Your task to perform on an android device: What's the weather going to be tomorrow? Image 0: 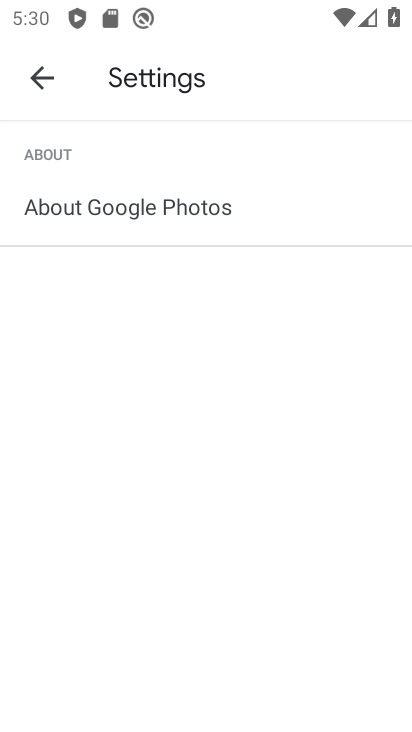
Step 0: press home button
Your task to perform on an android device: What's the weather going to be tomorrow? Image 1: 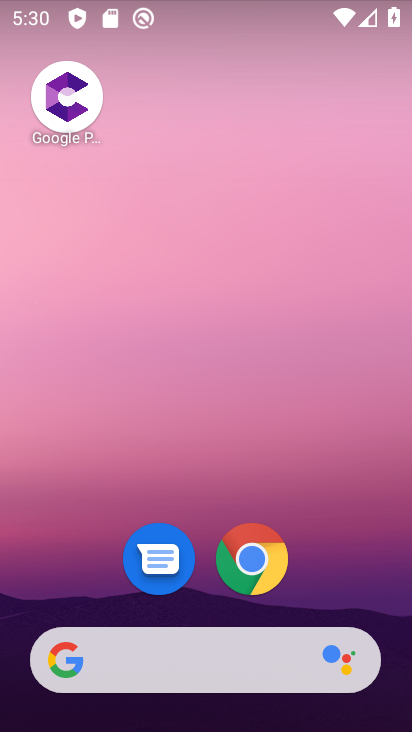
Step 1: click (258, 572)
Your task to perform on an android device: What's the weather going to be tomorrow? Image 2: 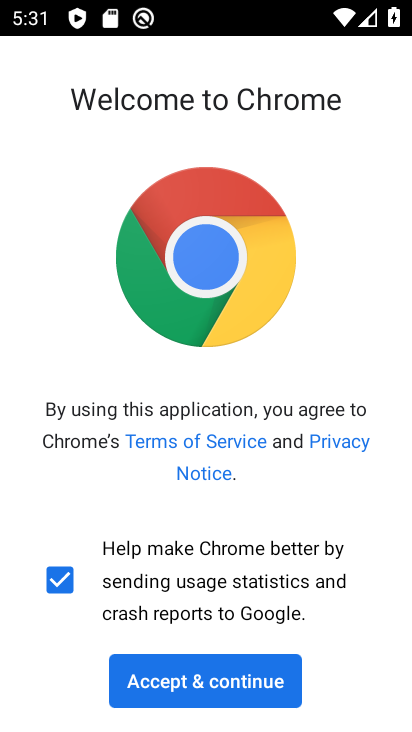
Step 2: click (214, 691)
Your task to perform on an android device: What's the weather going to be tomorrow? Image 3: 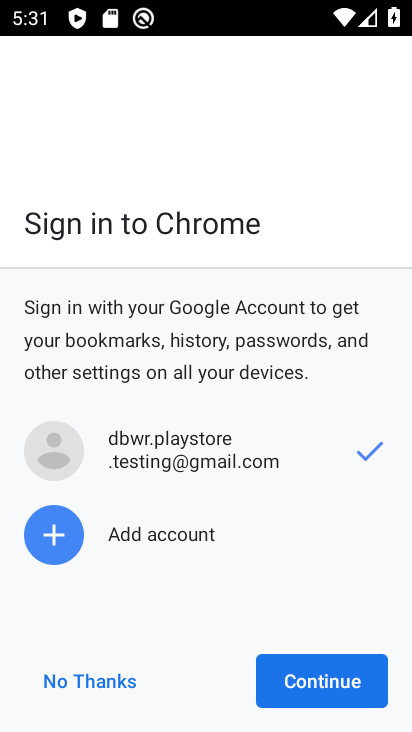
Step 3: click (290, 685)
Your task to perform on an android device: What's the weather going to be tomorrow? Image 4: 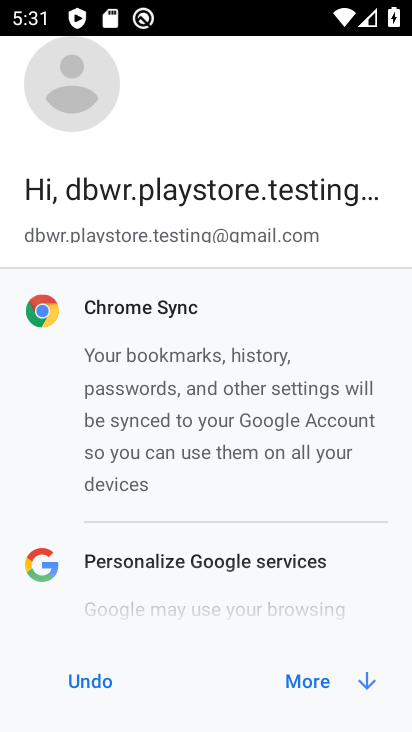
Step 4: click (290, 685)
Your task to perform on an android device: What's the weather going to be tomorrow? Image 5: 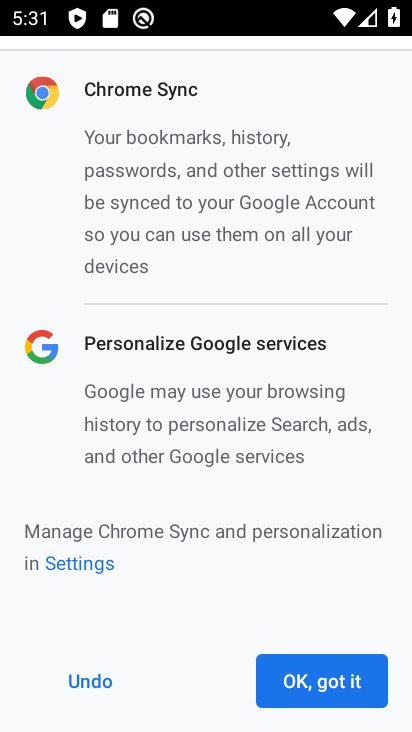
Step 5: click (290, 685)
Your task to perform on an android device: What's the weather going to be tomorrow? Image 6: 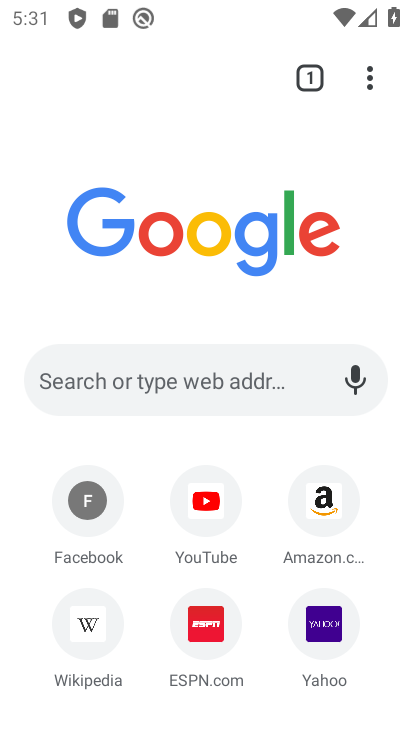
Step 6: click (185, 379)
Your task to perform on an android device: What's the weather going to be tomorrow? Image 7: 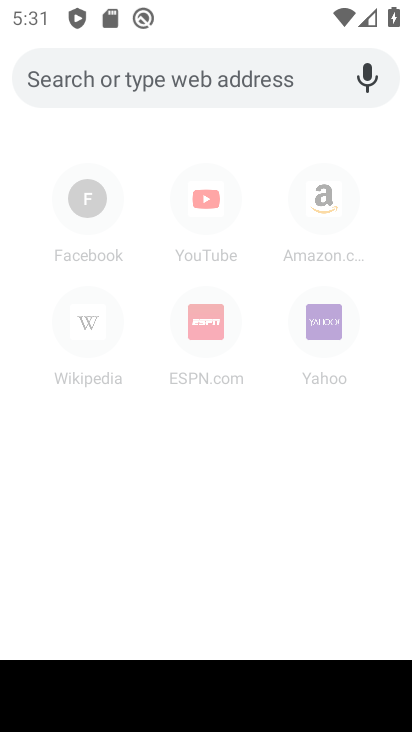
Step 7: type "What's the weather going to be tomorrow?"
Your task to perform on an android device: What's the weather going to be tomorrow? Image 8: 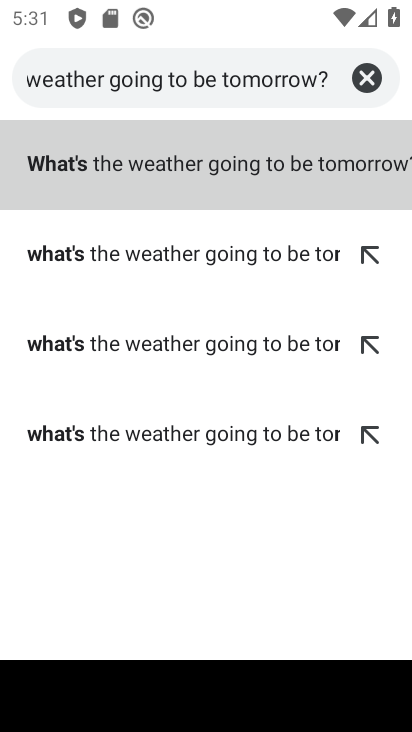
Step 8: click (247, 172)
Your task to perform on an android device: What's the weather going to be tomorrow? Image 9: 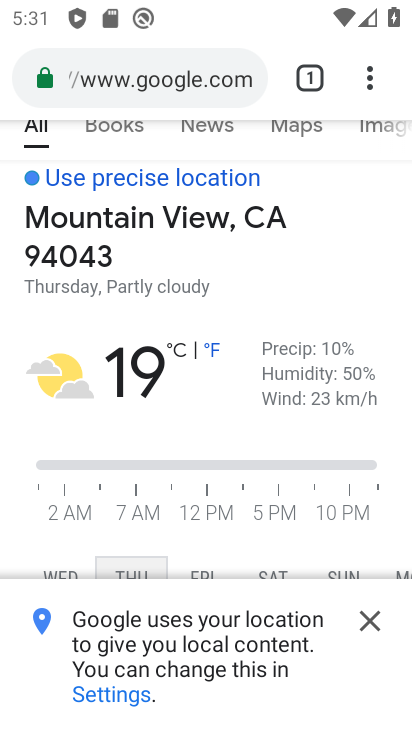
Step 9: task complete